Your task to perform on an android device: Search for seafood restaurants on Google Maps Image 0: 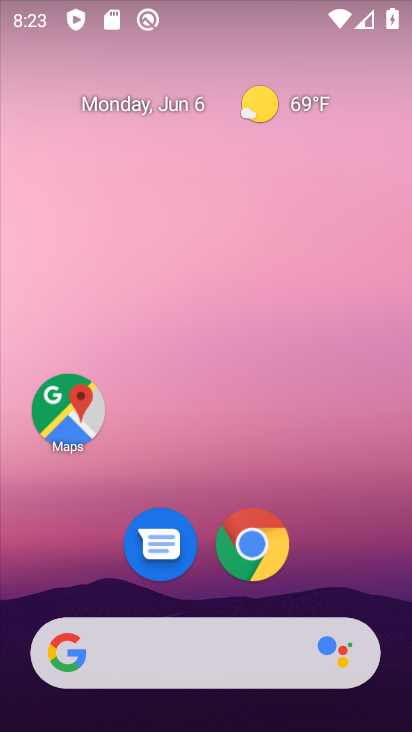
Step 0: drag from (136, 521) to (211, 153)
Your task to perform on an android device: Search for seafood restaurants on Google Maps Image 1: 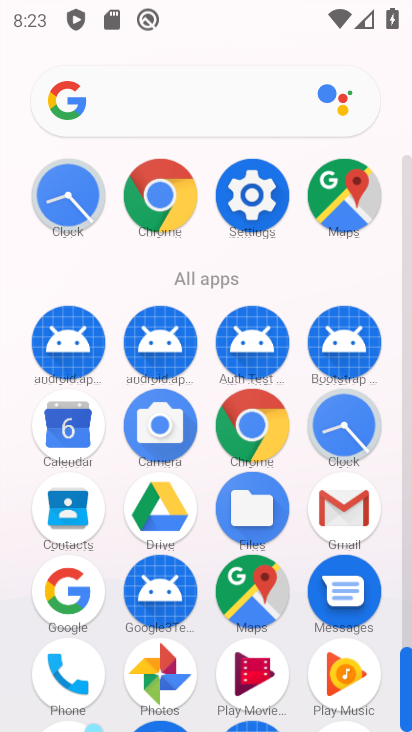
Step 1: click (261, 586)
Your task to perform on an android device: Search for seafood restaurants on Google Maps Image 2: 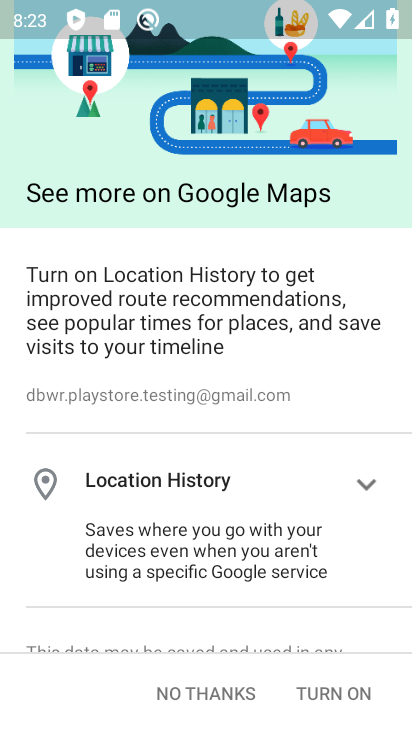
Step 2: click (339, 688)
Your task to perform on an android device: Search for seafood restaurants on Google Maps Image 3: 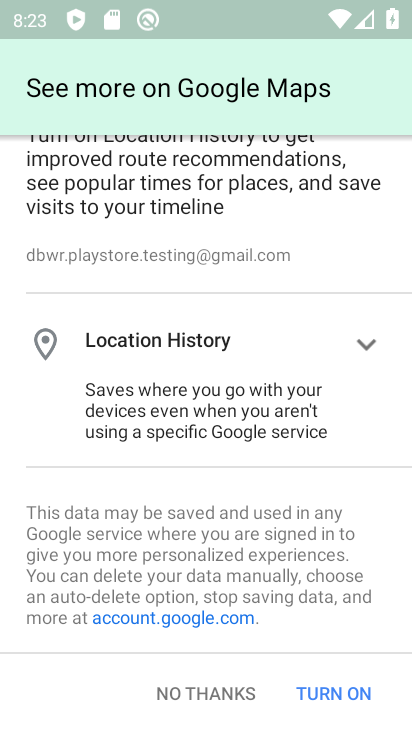
Step 3: click (350, 689)
Your task to perform on an android device: Search for seafood restaurants on Google Maps Image 4: 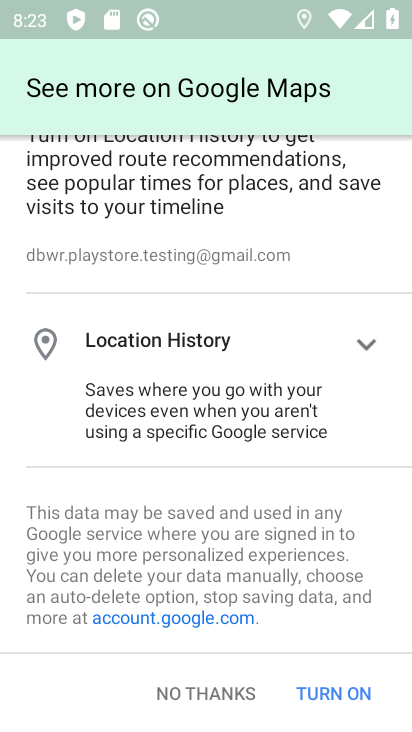
Step 4: click (233, 685)
Your task to perform on an android device: Search for seafood restaurants on Google Maps Image 5: 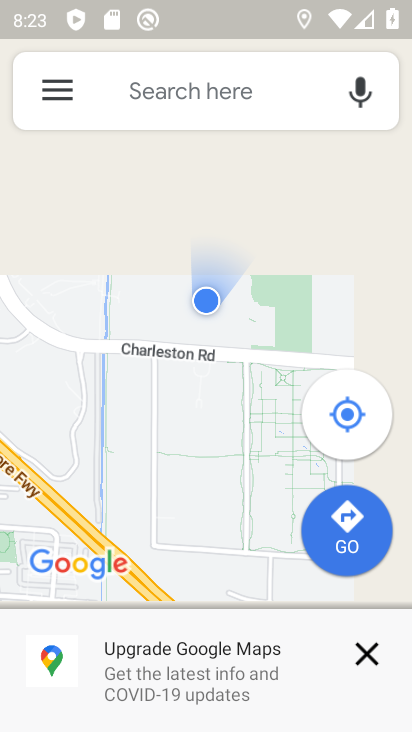
Step 5: click (192, 93)
Your task to perform on an android device: Search for seafood restaurants on Google Maps Image 6: 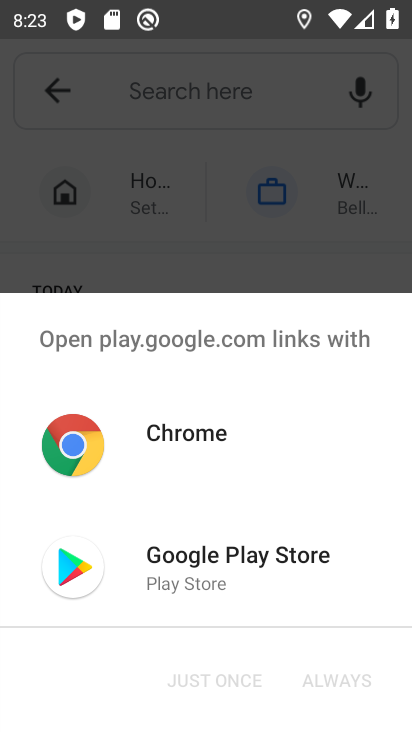
Step 6: click (166, 106)
Your task to perform on an android device: Search for seafood restaurants on Google Maps Image 7: 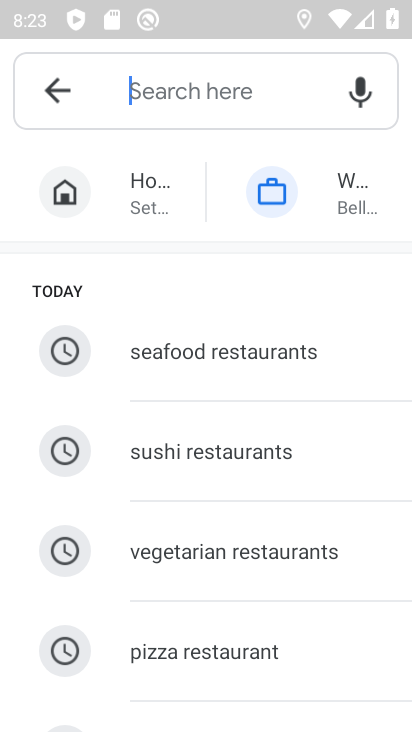
Step 7: type "v"
Your task to perform on an android device: Search for seafood restaurants on Google Maps Image 8: 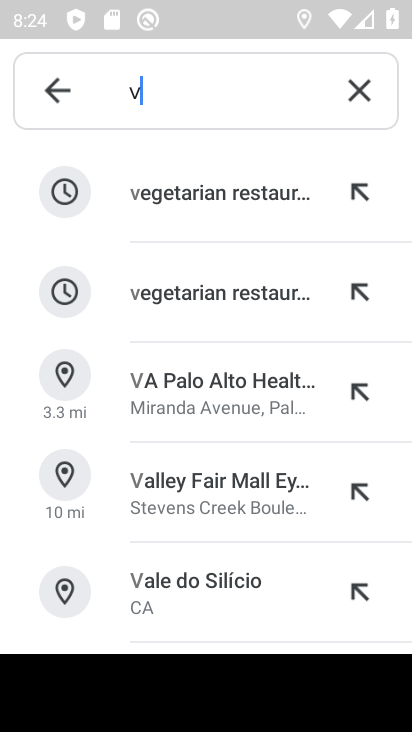
Step 8: click (358, 82)
Your task to perform on an android device: Search for seafood restaurants on Google Maps Image 9: 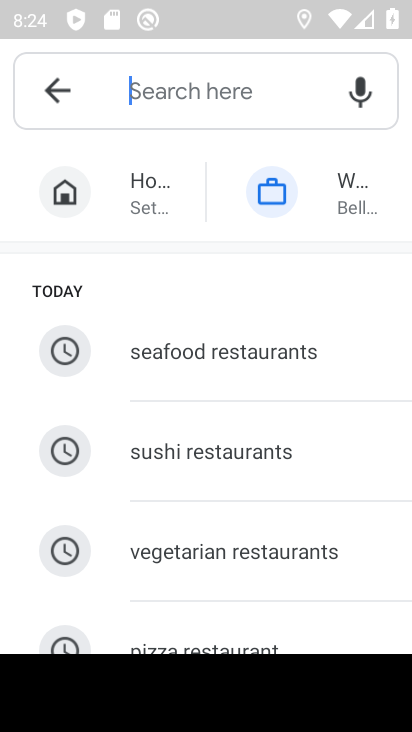
Step 9: type "Is it going to rain today?"
Your task to perform on an android device: Search for seafood restaurants on Google Maps Image 10: 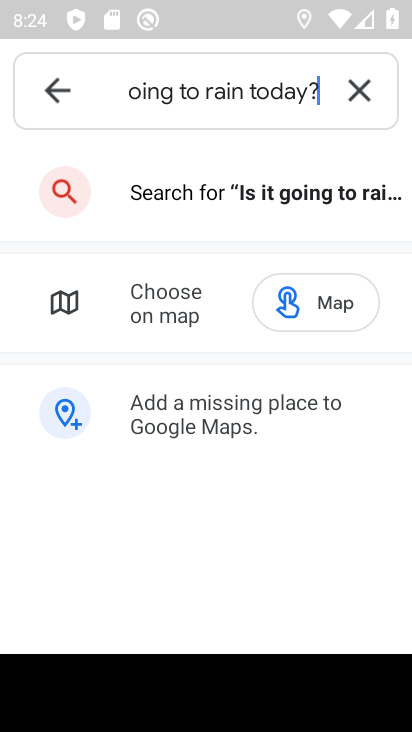
Step 10: click (354, 94)
Your task to perform on an android device: Search for seafood restaurants on Google Maps Image 11: 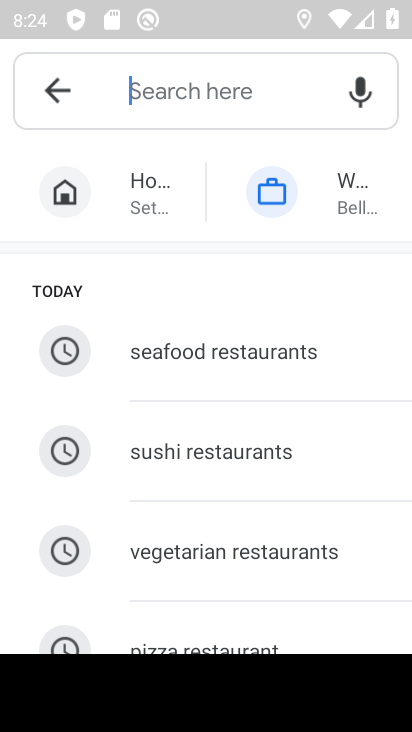
Step 11: type "Is it going to rain today?"
Your task to perform on an android device: Search for seafood restaurants on Google Maps Image 12: 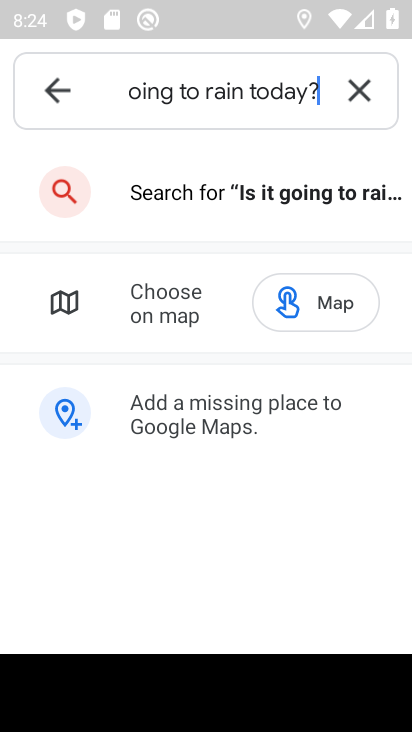
Step 12: click (364, 97)
Your task to perform on an android device: Search for seafood restaurants on Google Maps Image 13: 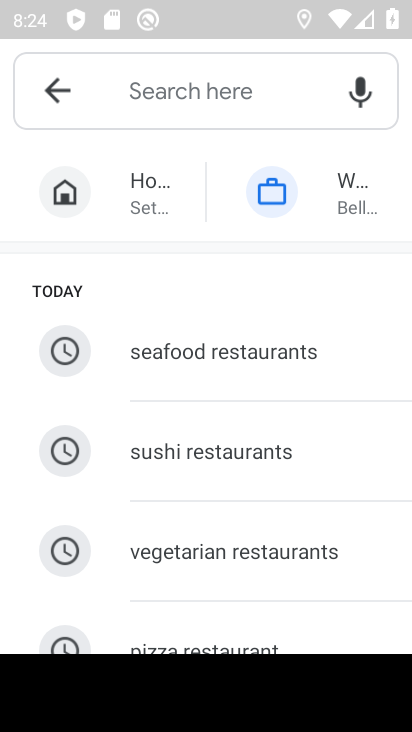
Step 13: type "seafood restaurants "
Your task to perform on an android device: Search for seafood restaurants on Google Maps Image 14: 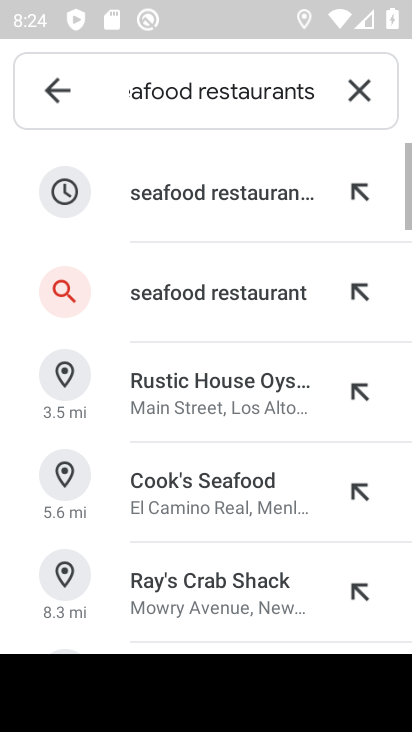
Step 14: click (135, 204)
Your task to perform on an android device: Search for seafood restaurants on Google Maps Image 15: 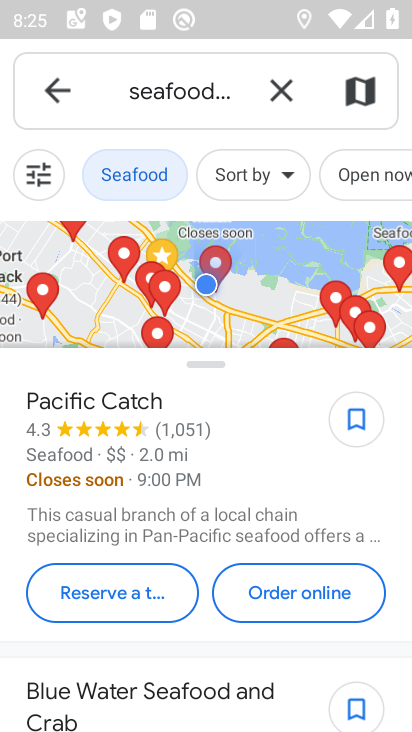
Step 15: task complete